Your task to perform on an android device: change your default location settings in chrome Image 0: 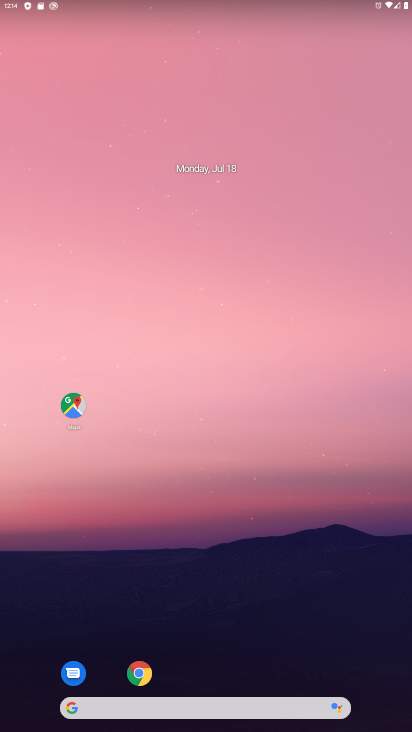
Step 0: click (131, 681)
Your task to perform on an android device: change your default location settings in chrome Image 1: 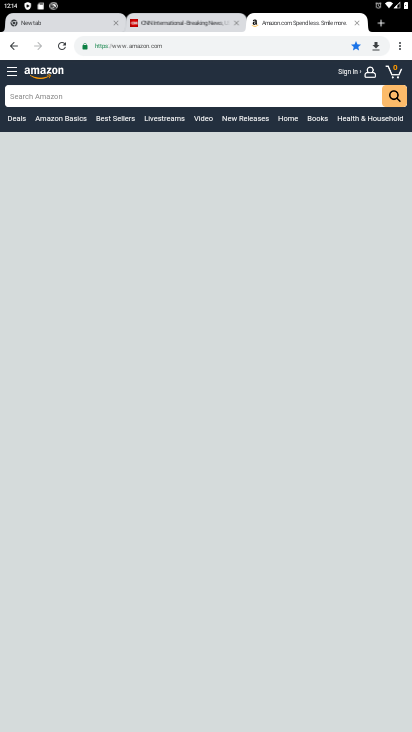
Step 1: click (392, 45)
Your task to perform on an android device: change your default location settings in chrome Image 2: 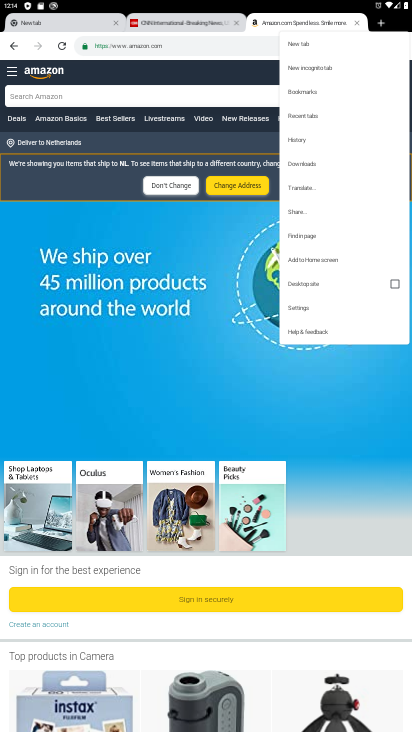
Step 2: click (310, 308)
Your task to perform on an android device: change your default location settings in chrome Image 3: 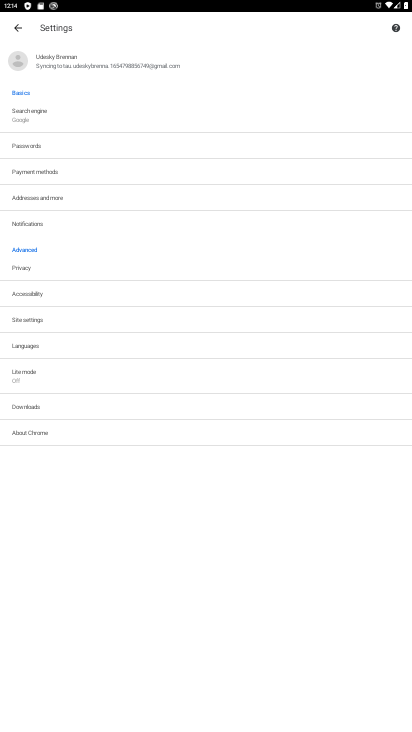
Step 3: click (120, 119)
Your task to perform on an android device: change your default location settings in chrome Image 4: 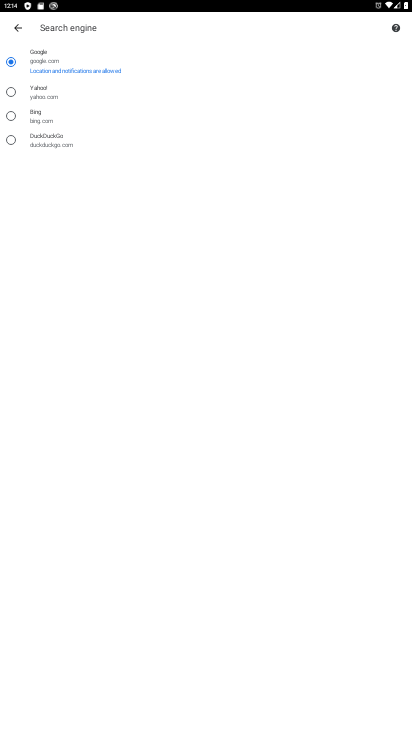
Step 4: task complete